Your task to perform on an android device: open app "TextNow: Call + Text Unlimited" Image 0: 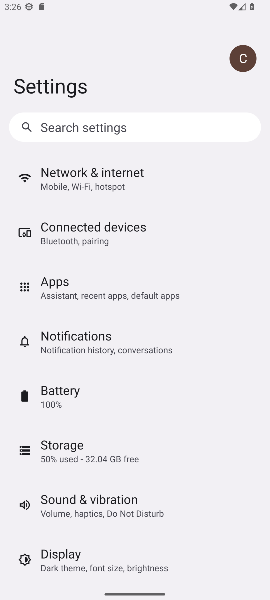
Step 0: press home button
Your task to perform on an android device: open app "TextNow: Call + Text Unlimited" Image 1: 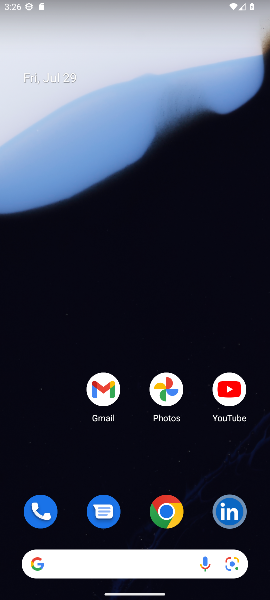
Step 1: drag from (154, 522) to (145, 287)
Your task to perform on an android device: open app "TextNow: Call + Text Unlimited" Image 2: 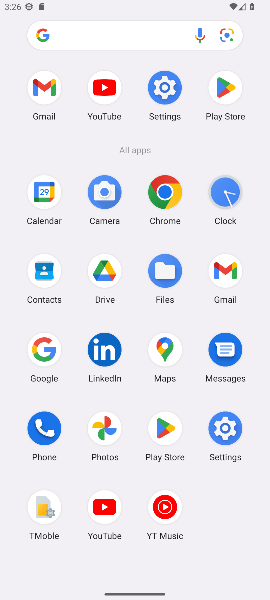
Step 2: click (168, 431)
Your task to perform on an android device: open app "TextNow: Call + Text Unlimited" Image 3: 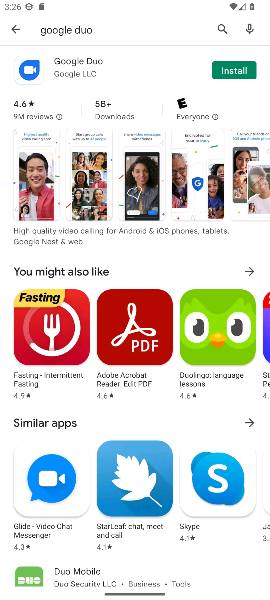
Step 3: click (13, 27)
Your task to perform on an android device: open app "TextNow: Call + Text Unlimited" Image 4: 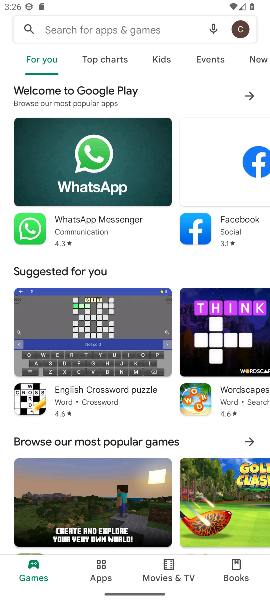
Step 4: click (159, 23)
Your task to perform on an android device: open app "TextNow: Call + Text Unlimited" Image 5: 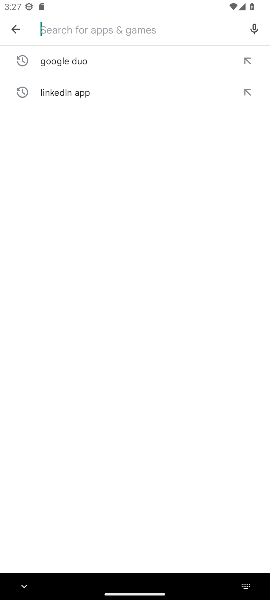
Step 5: type "textnow call + Text Unlimited"
Your task to perform on an android device: open app "TextNow: Call + Text Unlimited" Image 6: 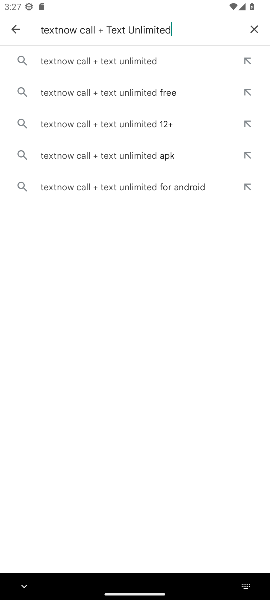
Step 6: click (103, 63)
Your task to perform on an android device: open app "TextNow: Call + Text Unlimited" Image 7: 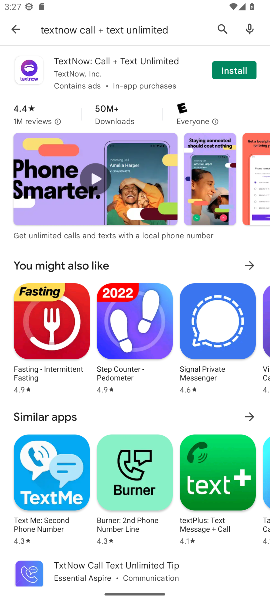
Step 7: click (230, 70)
Your task to perform on an android device: open app "TextNow: Call + Text Unlimited" Image 8: 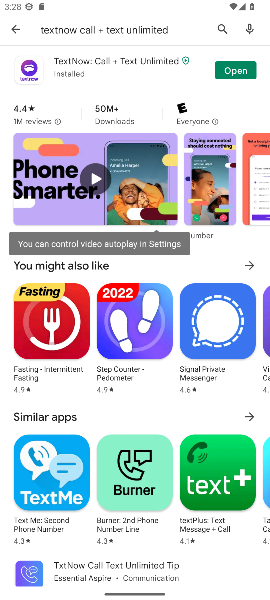
Step 8: click (239, 70)
Your task to perform on an android device: open app "TextNow: Call + Text Unlimited" Image 9: 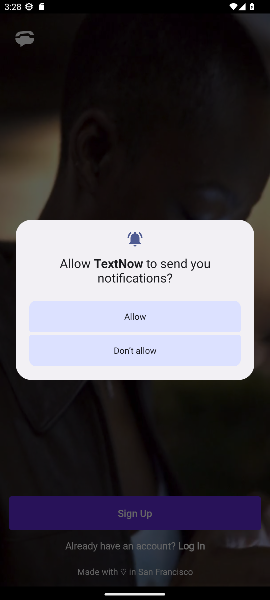
Step 9: task complete